Your task to perform on an android device: add a label to a message in the gmail app Image 0: 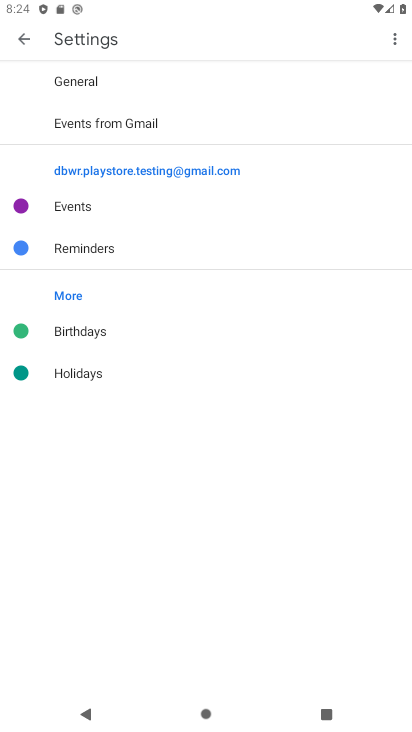
Step 0: press back button
Your task to perform on an android device: add a label to a message in the gmail app Image 1: 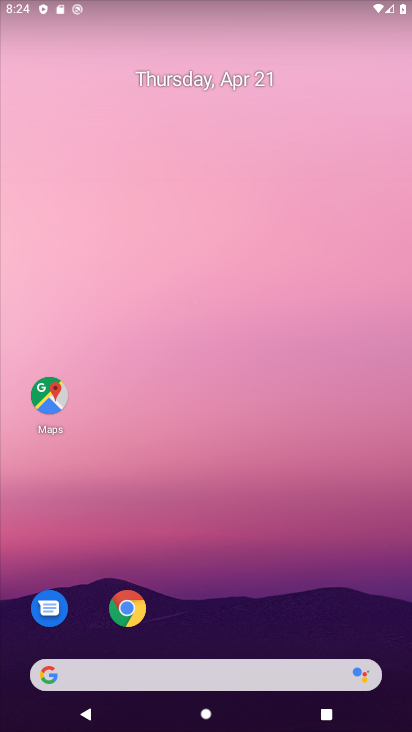
Step 1: drag from (269, 626) to (267, 176)
Your task to perform on an android device: add a label to a message in the gmail app Image 2: 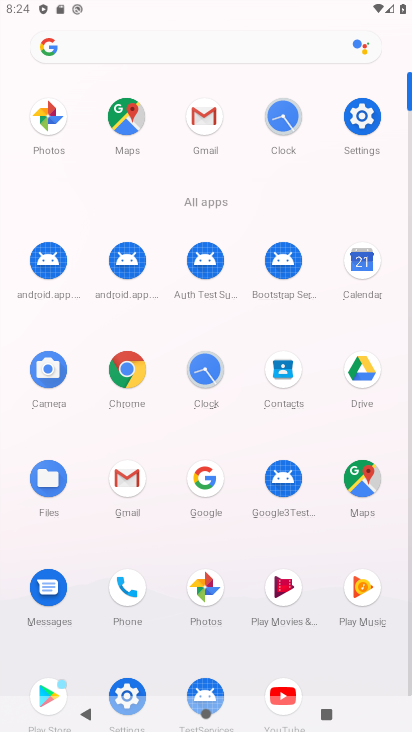
Step 2: click (200, 123)
Your task to perform on an android device: add a label to a message in the gmail app Image 3: 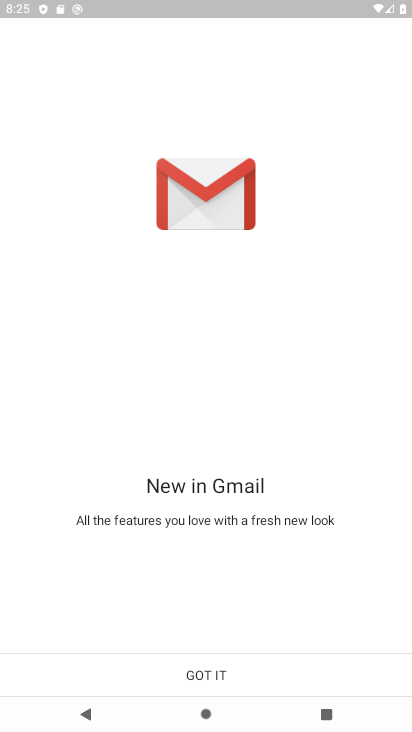
Step 3: click (215, 681)
Your task to perform on an android device: add a label to a message in the gmail app Image 4: 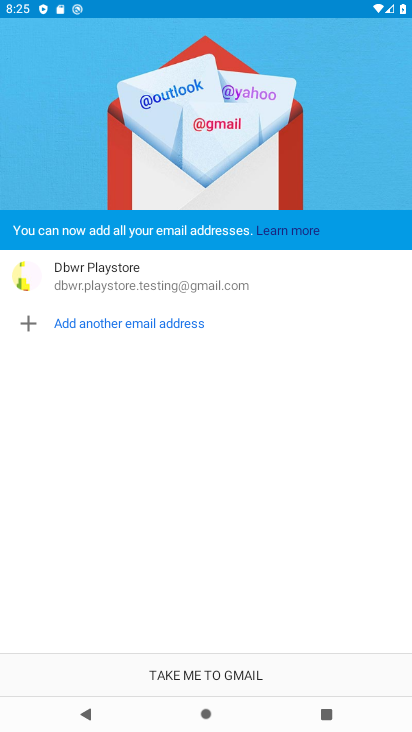
Step 4: click (211, 681)
Your task to perform on an android device: add a label to a message in the gmail app Image 5: 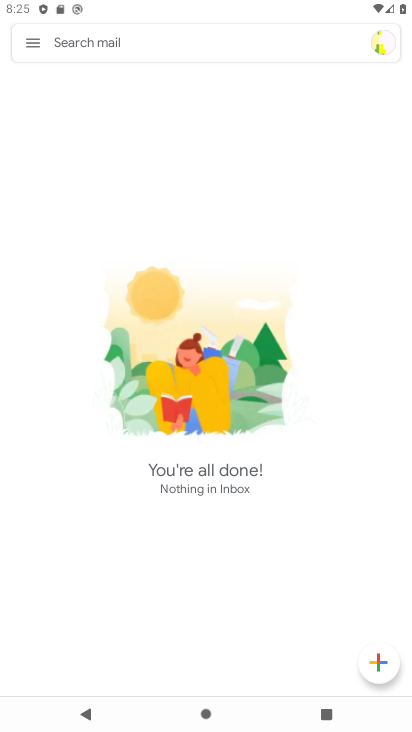
Step 5: task complete